Your task to perform on an android device: find photos in the google photos app Image 0: 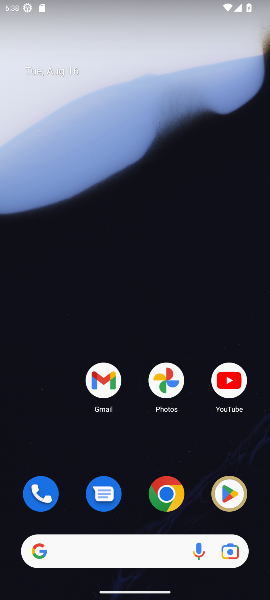
Step 0: click (234, 300)
Your task to perform on an android device: find photos in the google photos app Image 1: 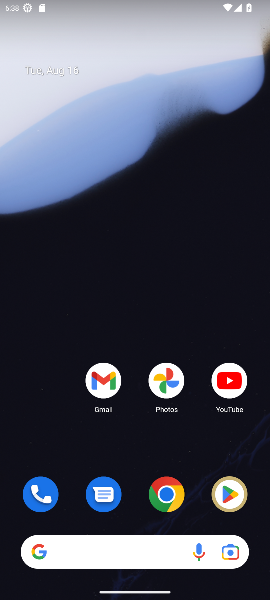
Step 1: task complete